Your task to perform on an android device: open app "PlayWell" (install if not already installed) Image 0: 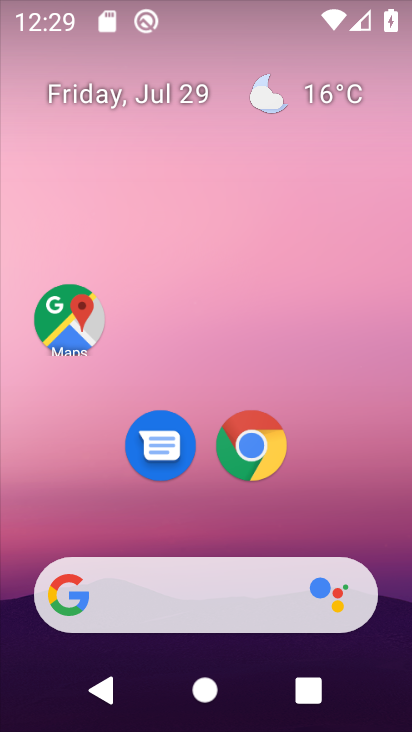
Step 0: press home button
Your task to perform on an android device: open app "PlayWell" (install if not already installed) Image 1: 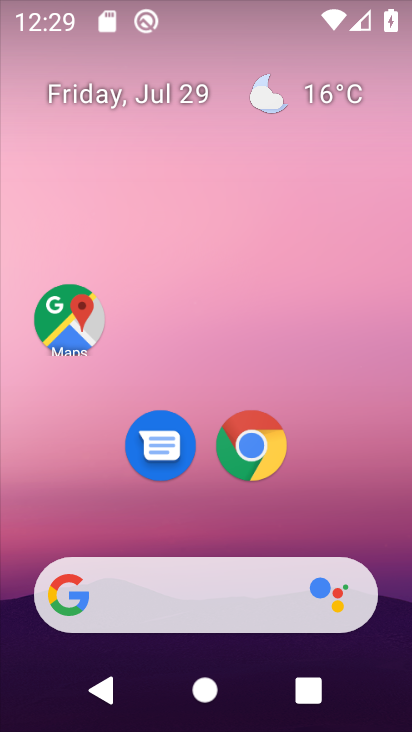
Step 1: drag from (327, 581) to (314, 18)
Your task to perform on an android device: open app "PlayWell" (install if not already installed) Image 2: 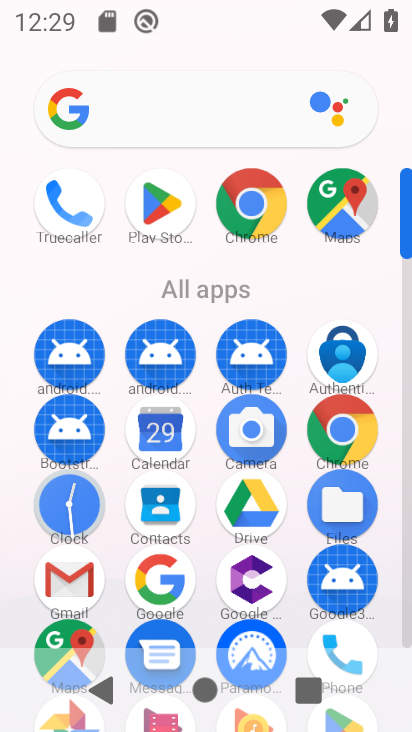
Step 2: click (154, 196)
Your task to perform on an android device: open app "PlayWell" (install if not already installed) Image 3: 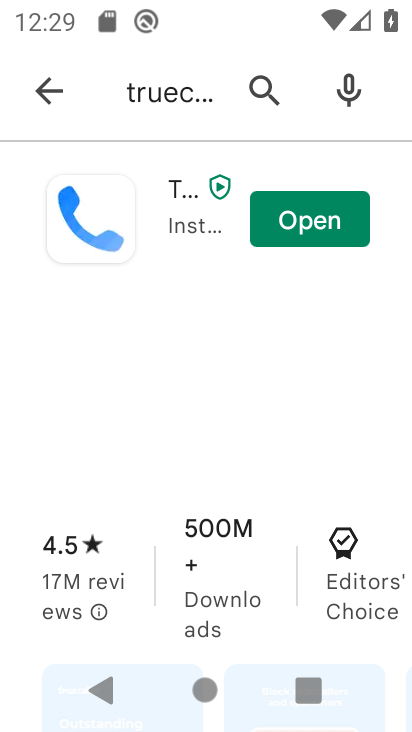
Step 3: click (261, 92)
Your task to perform on an android device: open app "PlayWell" (install if not already installed) Image 4: 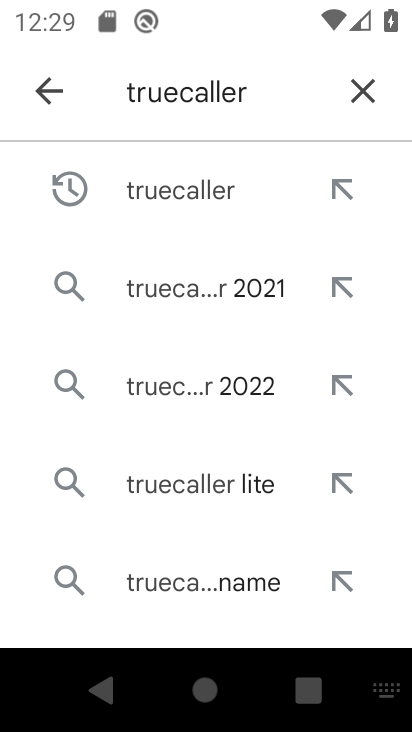
Step 4: click (374, 75)
Your task to perform on an android device: open app "PlayWell" (install if not already installed) Image 5: 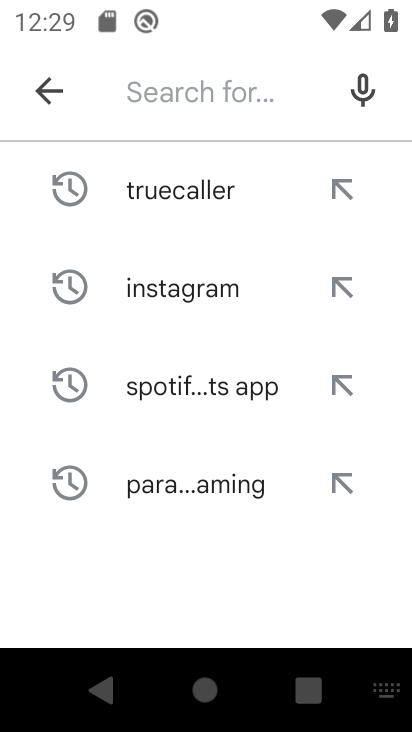
Step 5: type "PlayWell"
Your task to perform on an android device: open app "PlayWell" (install if not already installed) Image 6: 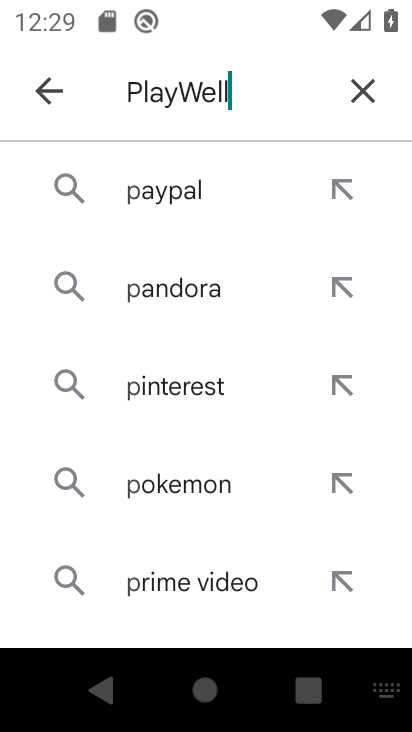
Step 6: type ""
Your task to perform on an android device: open app "PlayWell" (install if not already installed) Image 7: 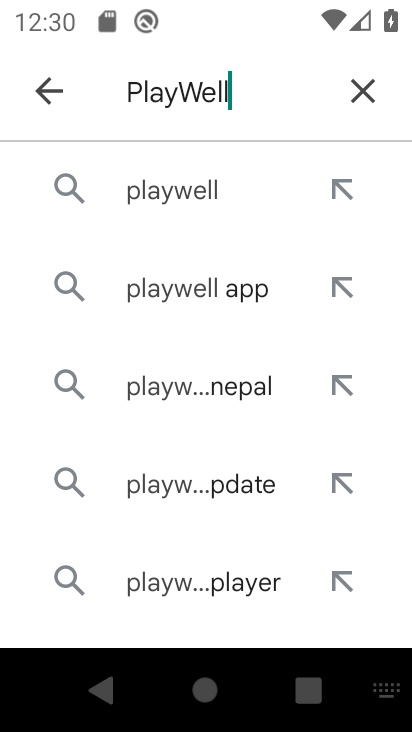
Step 7: click (220, 202)
Your task to perform on an android device: open app "PlayWell" (install if not already installed) Image 8: 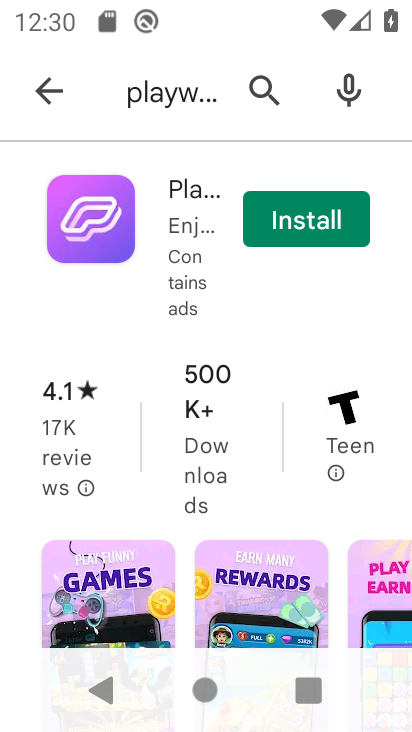
Step 8: click (275, 221)
Your task to perform on an android device: open app "PlayWell" (install if not already installed) Image 9: 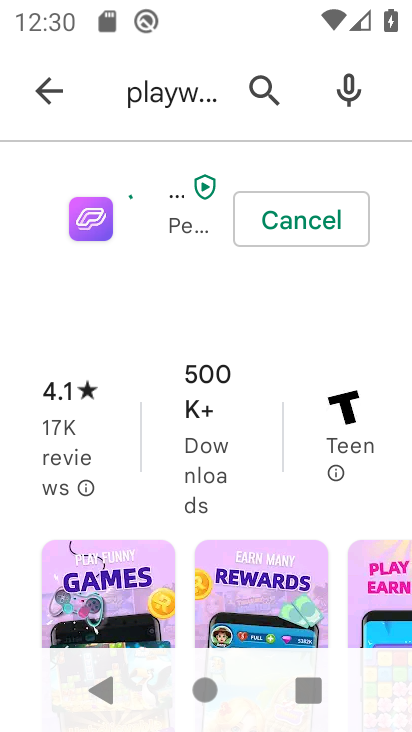
Step 9: click (121, 221)
Your task to perform on an android device: open app "PlayWell" (install if not already installed) Image 10: 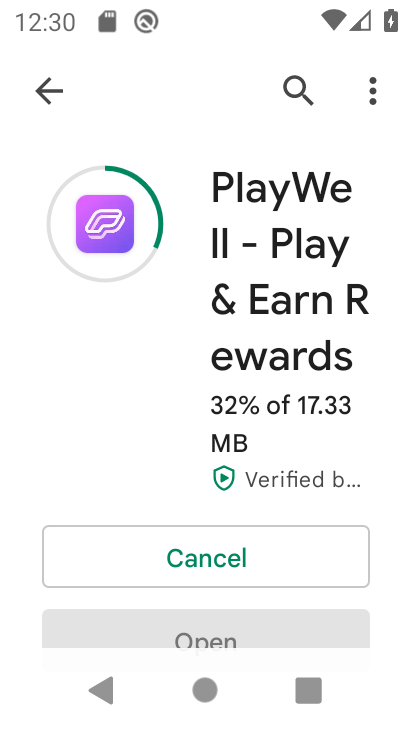
Step 10: drag from (244, 449) to (209, 68)
Your task to perform on an android device: open app "PlayWell" (install if not already installed) Image 11: 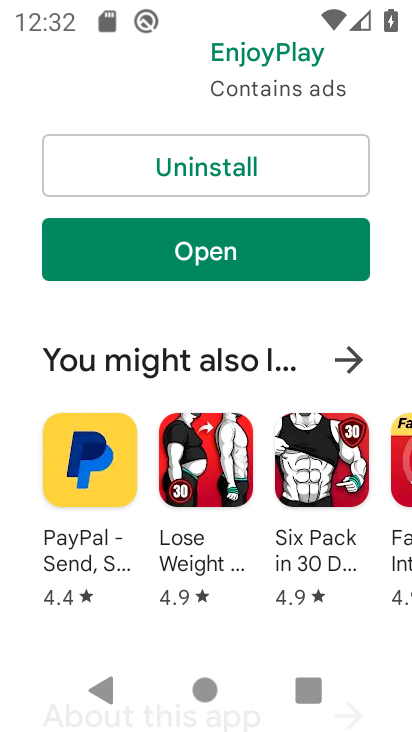
Step 11: click (204, 262)
Your task to perform on an android device: open app "PlayWell" (install if not already installed) Image 12: 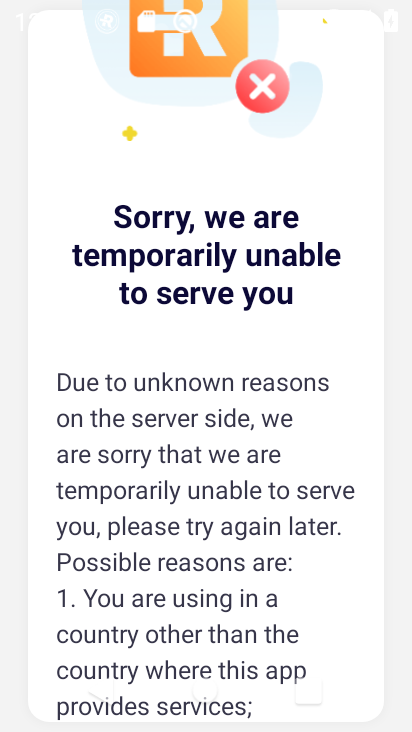
Step 12: task complete